Your task to perform on an android device: Open calendar and show me the second week of next month Image 0: 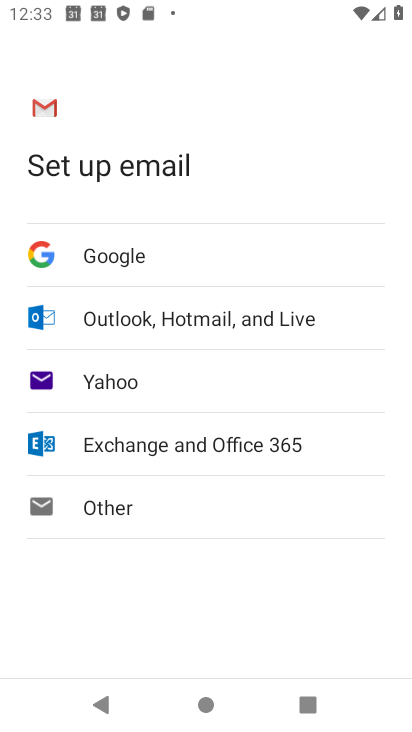
Step 0: drag from (221, 579) to (312, 274)
Your task to perform on an android device: Open calendar and show me the second week of next month Image 1: 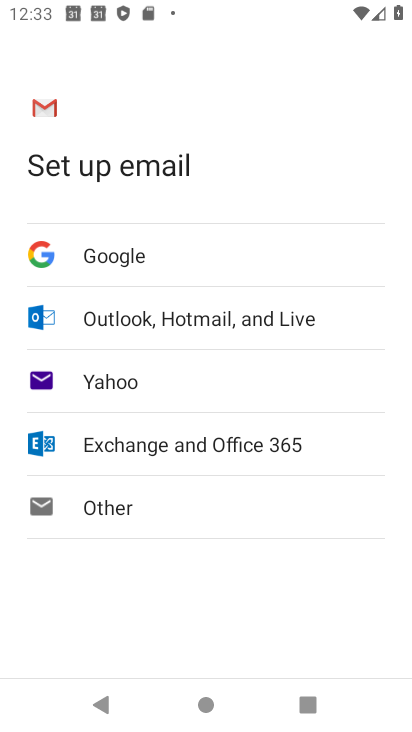
Step 1: press home button
Your task to perform on an android device: Open calendar and show me the second week of next month Image 2: 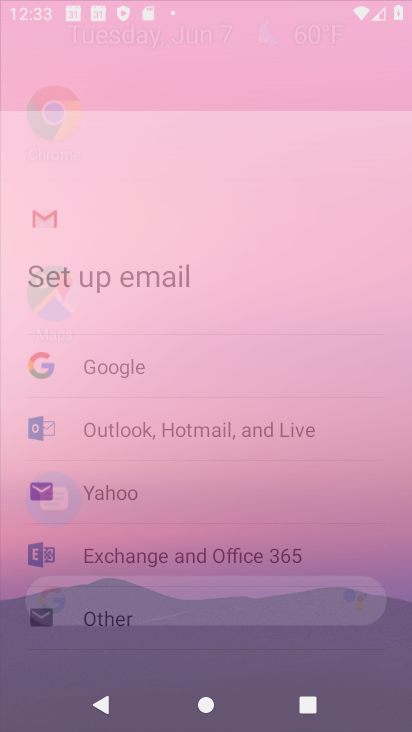
Step 2: drag from (223, 570) to (408, 65)
Your task to perform on an android device: Open calendar and show me the second week of next month Image 3: 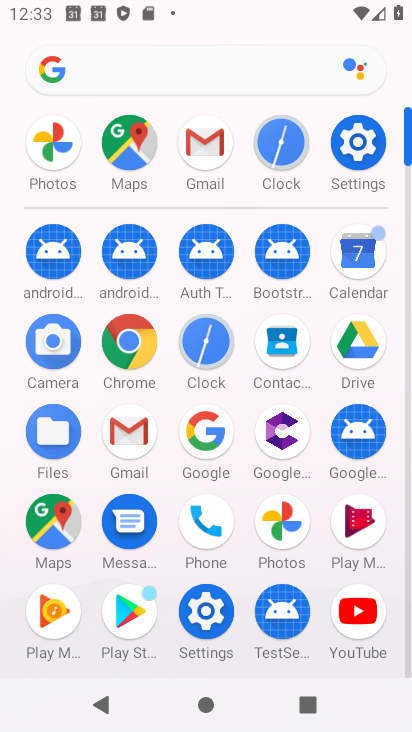
Step 3: click (358, 253)
Your task to perform on an android device: Open calendar and show me the second week of next month Image 4: 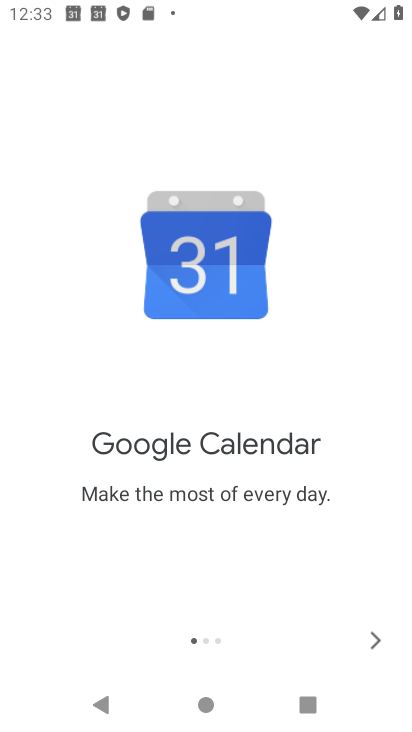
Step 4: click (375, 634)
Your task to perform on an android device: Open calendar and show me the second week of next month Image 5: 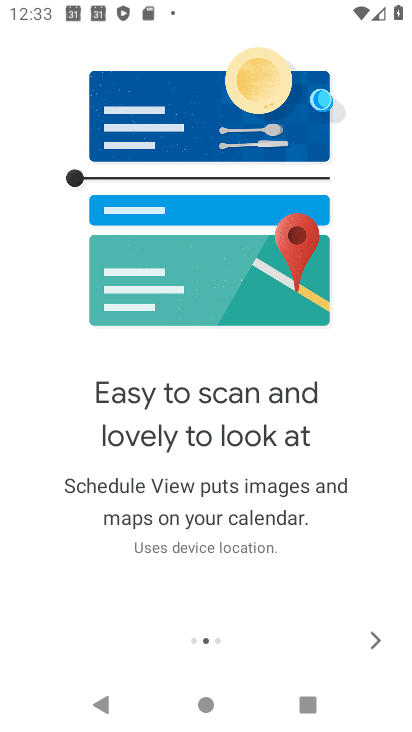
Step 5: click (374, 643)
Your task to perform on an android device: Open calendar and show me the second week of next month Image 6: 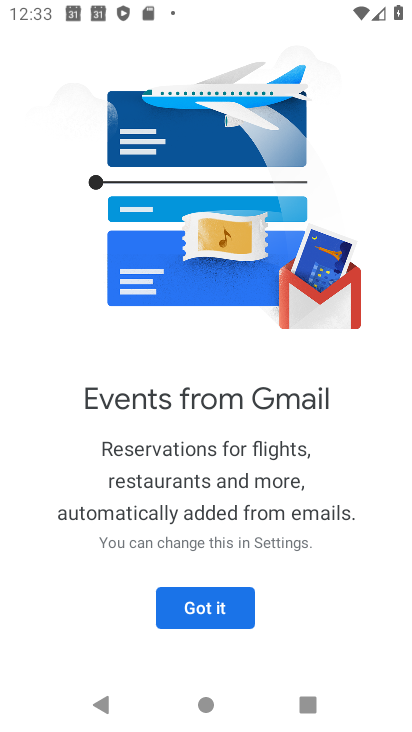
Step 6: click (374, 643)
Your task to perform on an android device: Open calendar and show me the second week of next month Image 7: 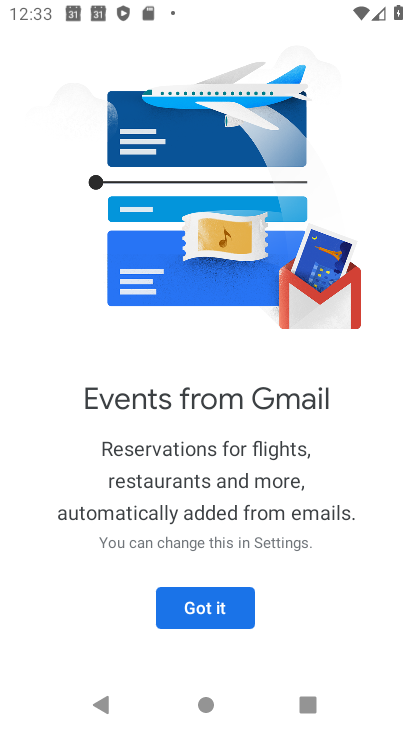
Step 7: click (235, 609)
Your task to perform on an android device: Open calendar and show me the second week of next month Image 8: 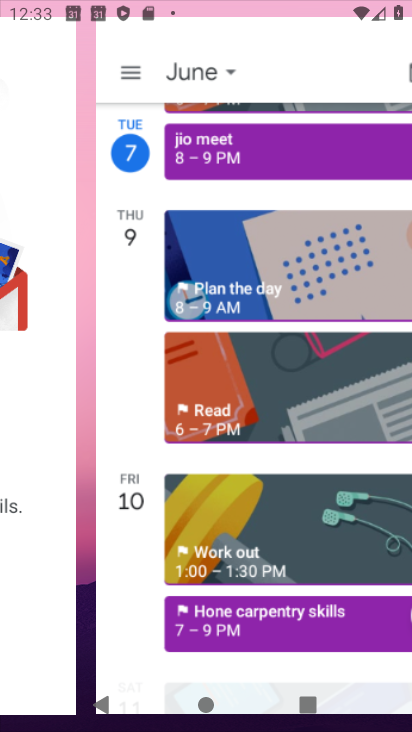
Step 8: drag from (256, 554) to (280, 95)
Your task to perform on an android device: Open calendar and show me the second week of next month Image 9: 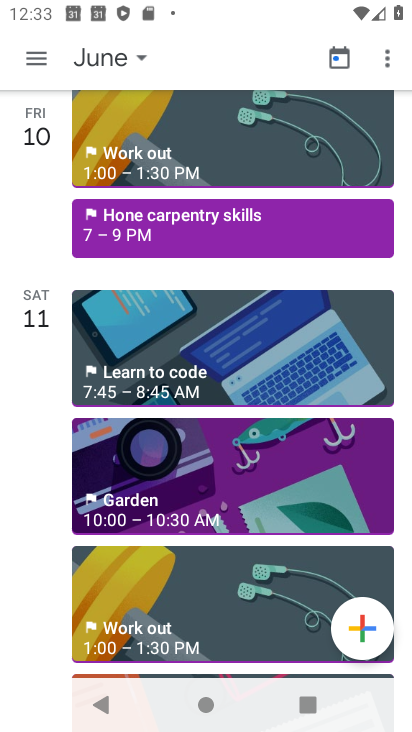
Step 9: drag from (248, 248) to (360, 673)
Your task to perform on an android device: Open calendar and show me the second week of next month Image 10: 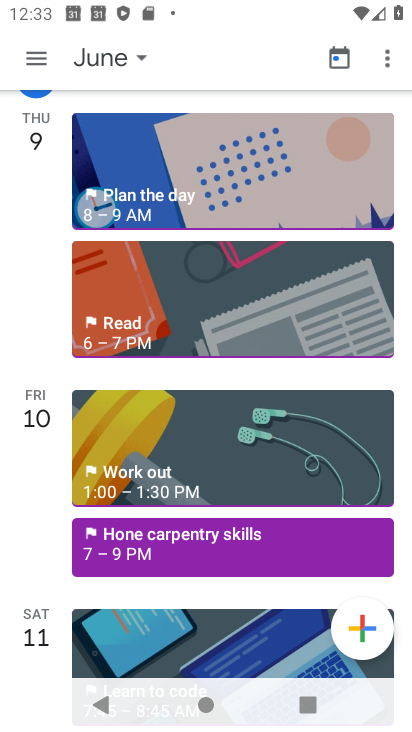
Step 10: click (103, 54)
Your task to perform on an android device: Open calendar and show me the second week of next month Image 11: 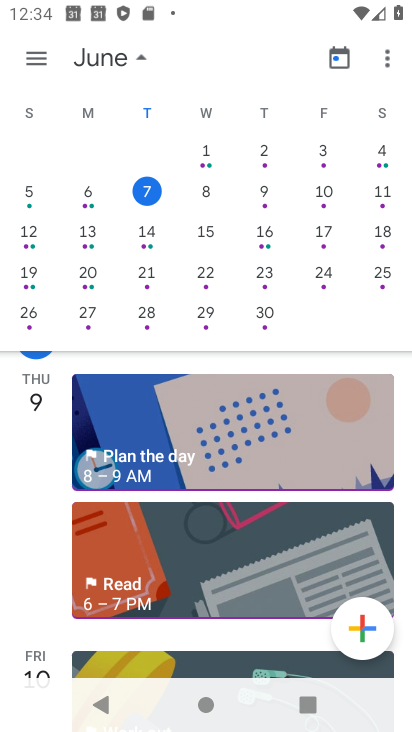
Step 11: drag from (361, 207) to (0, 160)
Your task to perform on an android device: Open calendar and show me the second week of next month Image 12: 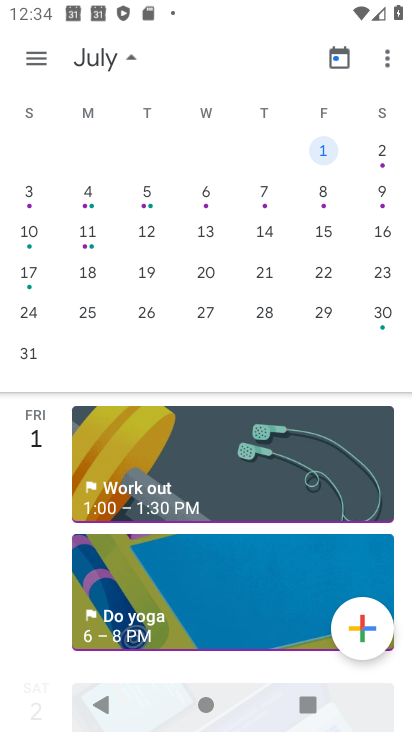
Step 12: click (324, 203)
Your task to perform on an android device: Open calendar and show me the second week of next month Image 13: 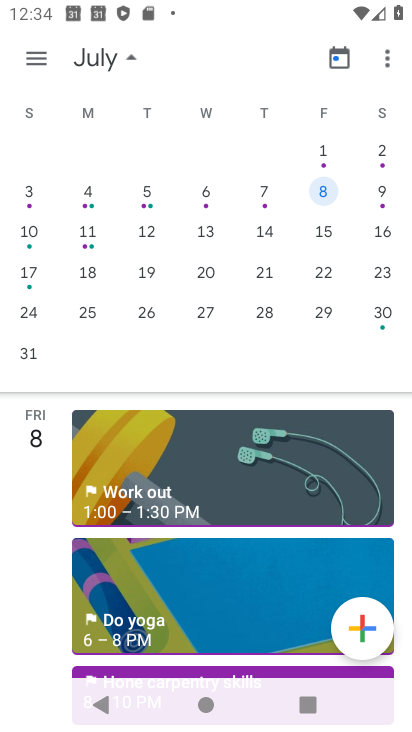
Step 13: task complete